Your task to perform on an android device: Go to settings Image 0: 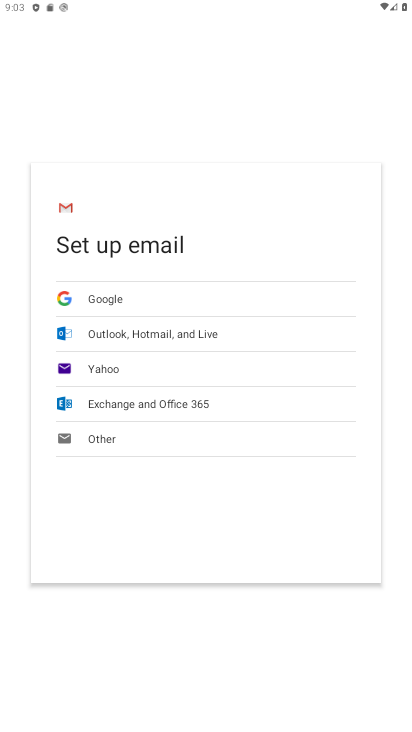
Step 0: press home button
Your task to perform on an android device: Go to settings Image 1: 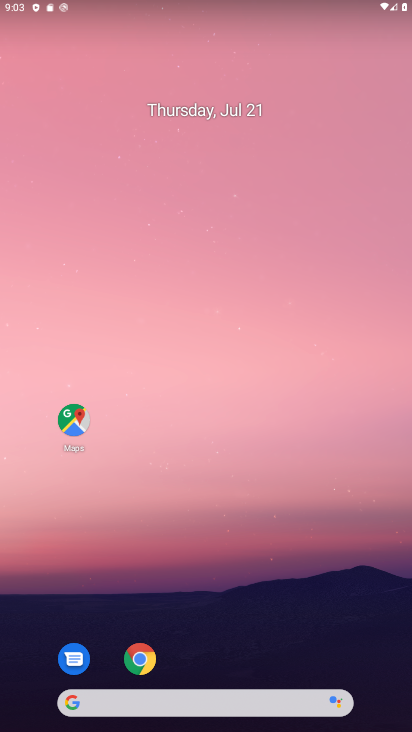
Step 1: drag from (253, 671) to (162, 160)
Your task to perform on an android device: Go to settings Image 2: 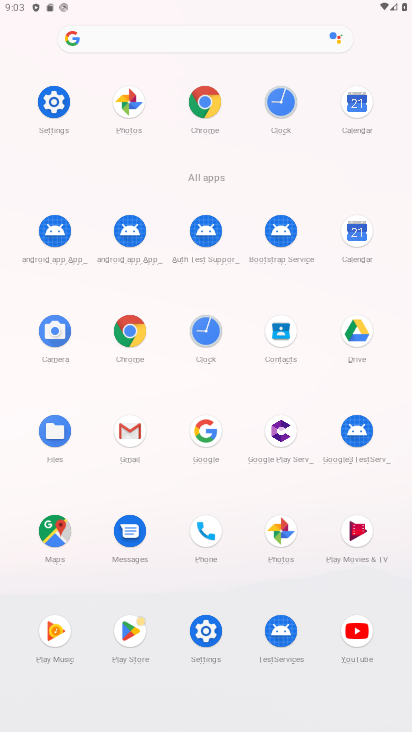
Step 2: click (54, 102)
Your task to perform on an android device: Go to settings Image 3: 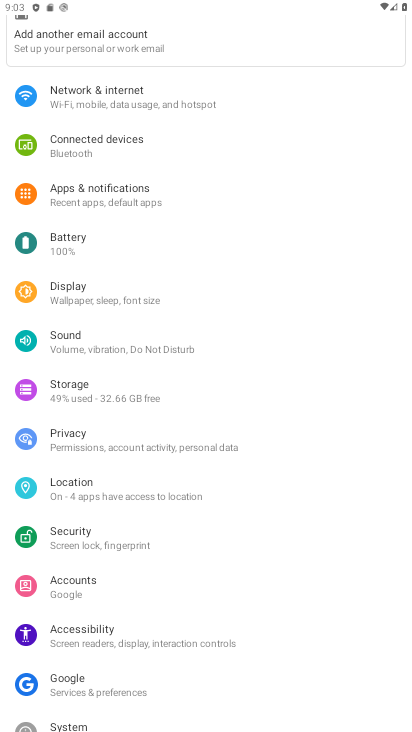
Step 3: task complete